Your task to perform on an android device: Open calendar and show me the second week of next month Image 0: 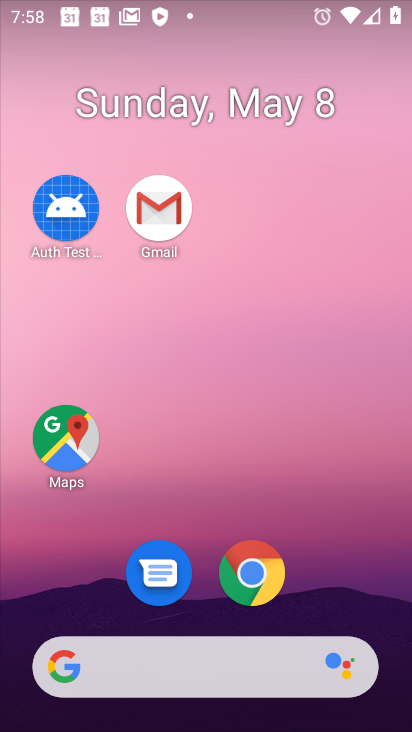
Step 0: drag from (307, 693) to (124, 201)
Your task to perform on an android device: Open calendar and show me the second week of next month Image 1: 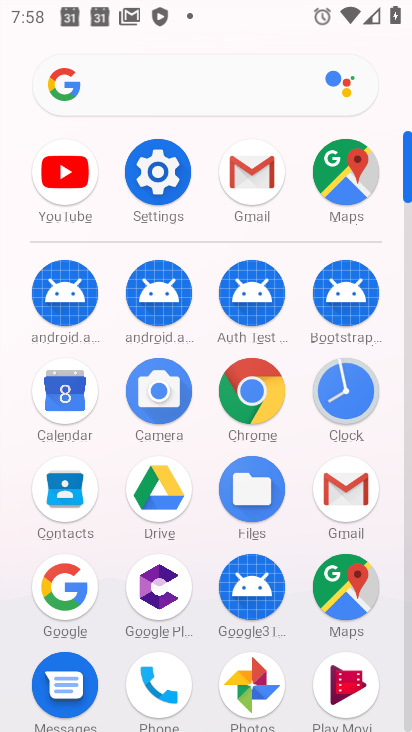
Step 1: click (65, 399)
Your task to perform on an android device: Open calendar and show me the second week of next month Image 2: 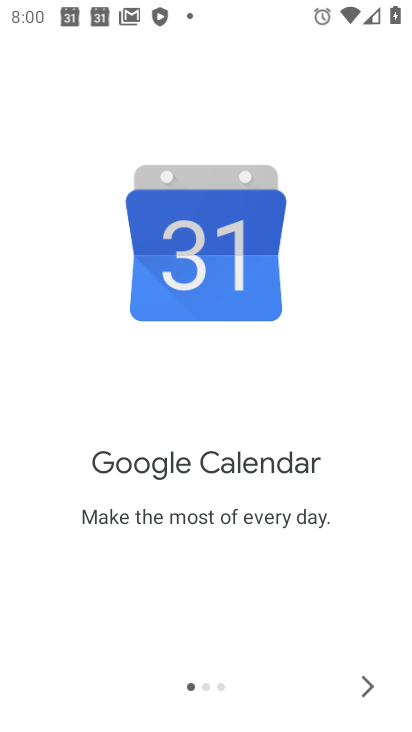
Step 2: click (365, 680)
Your task to perform on an android device: Open calendar and show me the second week of next month Image 3: 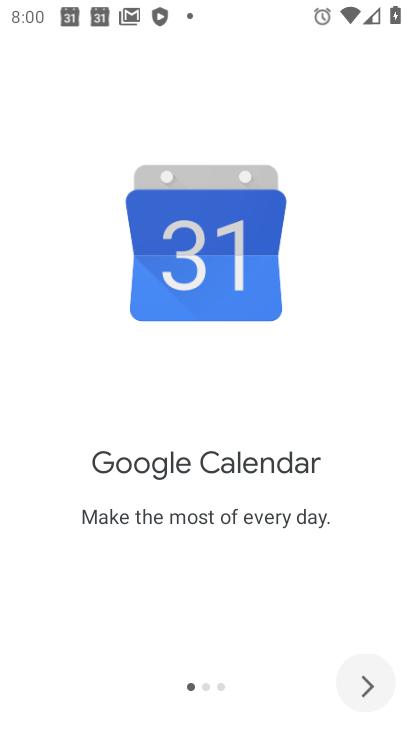
Step 3: click (365, 680)
Your task to perform on an android device: Open calendar and show me the second week of next month Image 4: 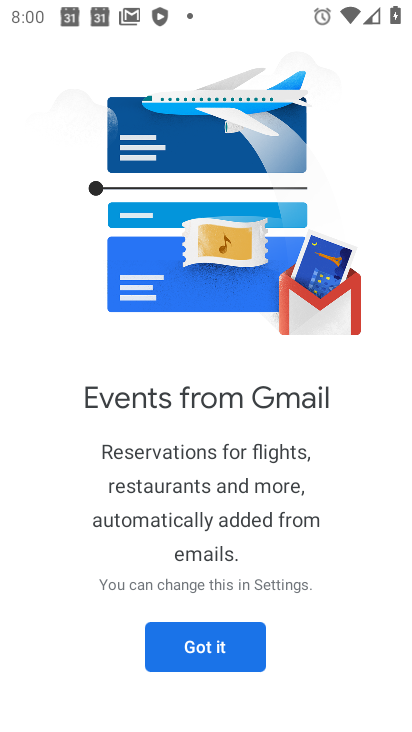
Step 4: click (365, 680)
Your task to perform on an android device: Open calendar and show me the second week of next month Image 5: 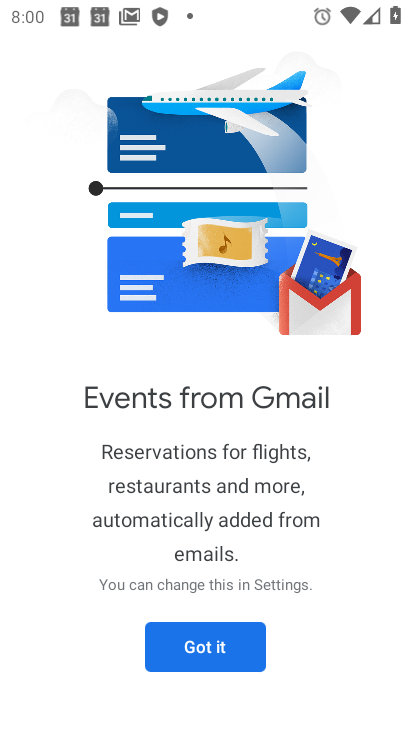
Step 5: click (228, 653)
Your task to perform on an android device: Open calendar and show me the second week of next month Image 6: 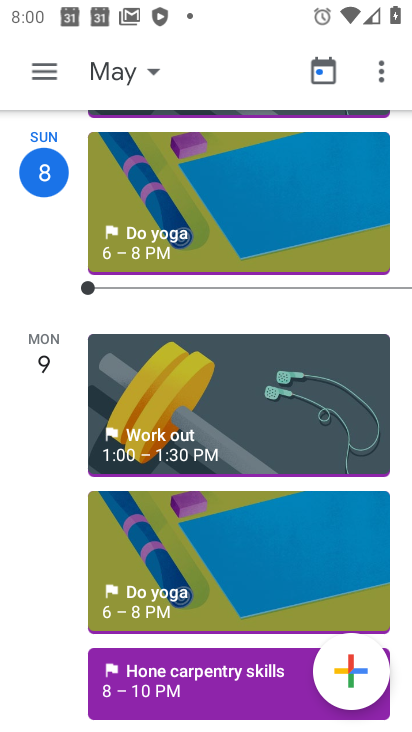
Step 6: click (147, 72)
Your task to perform on an android device: Open calendar and show me the second week of next month Image 7: 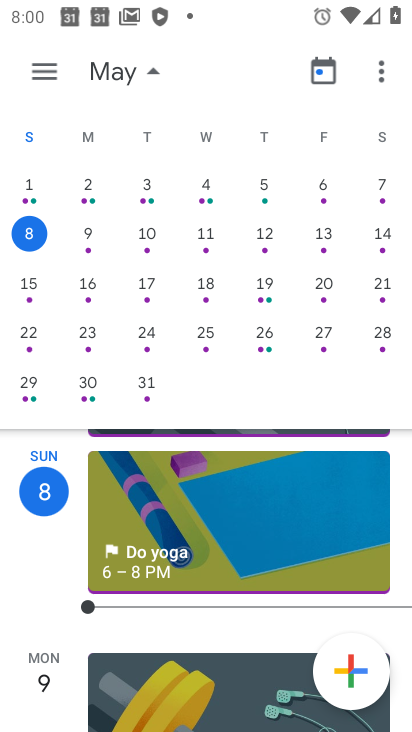
Step 7: drag from (253, 244) to (15, 246)
Your task to perform on an android device: Open calendar and show me the second week of next month Image 8: 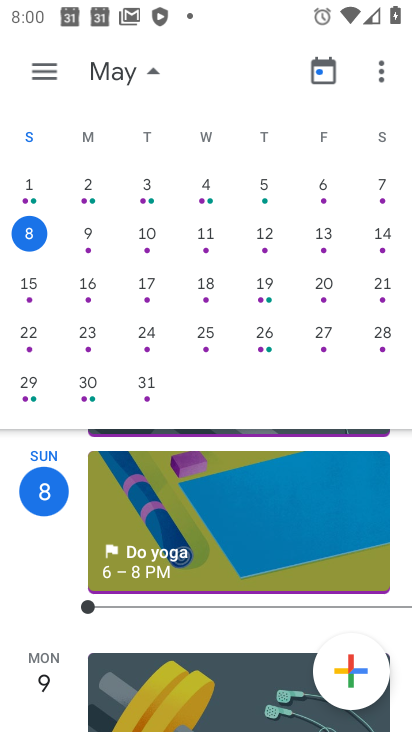
Step 8: drag from (235, 243) to (0, 308)
Your task to perform on an android device: Open calendar and show me the second week of next month Image 9: 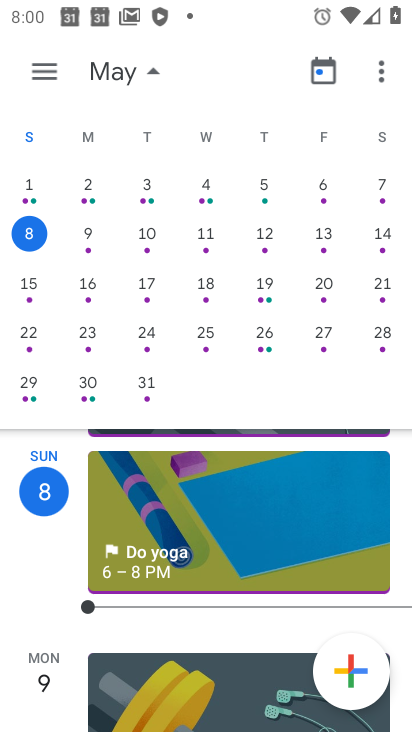
Step 9: drag from (294, 274) to (18, 215)
Your task to perform on an android device: Open calendar and show me the second week of next month Image 10: 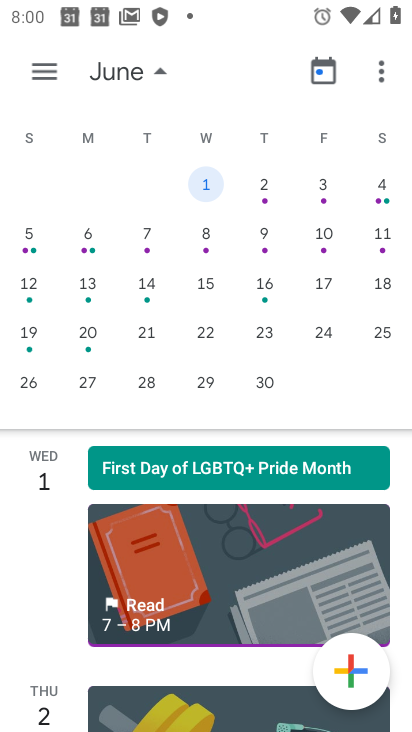
Step 10: drag from (199, 346) to (128, 379)
Your task to perform on an android device: Open calendar and show me the second week of next month Image 11: 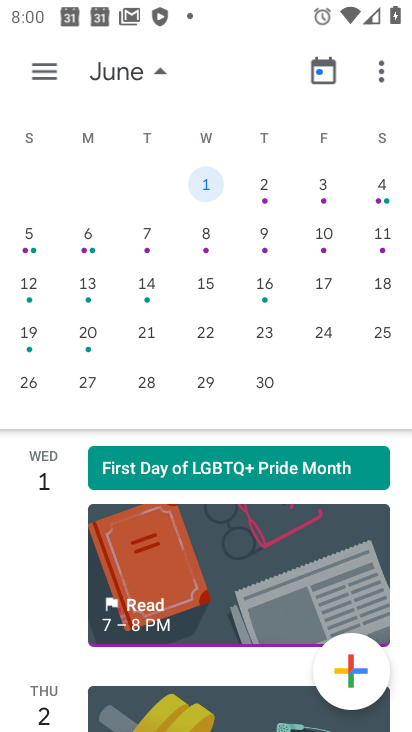
Step 11: click (200, 235)
Your task to perform on an android device: Open calendar and show me the second week of next month Image 12: 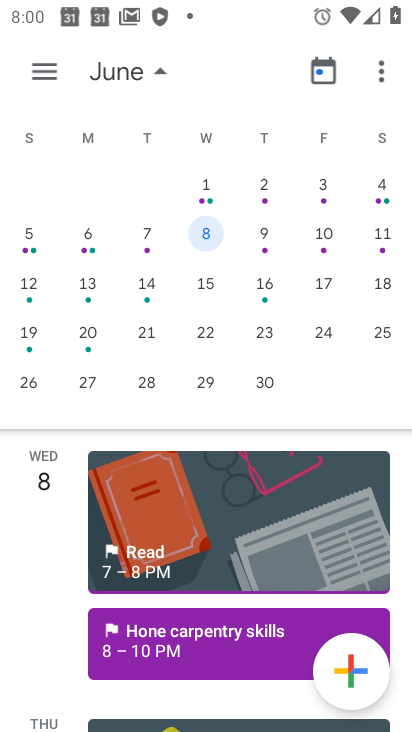
Step 12: task complete